Your task to perform on an android device: Open privacy settings Image 0: 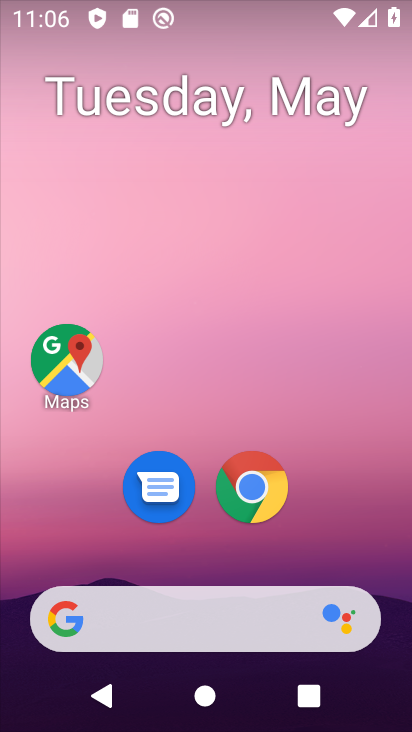
Step 0: drag from (290, 540) to (308, 102)
Your task to perform on an android device: Open privacy settings Image 1: 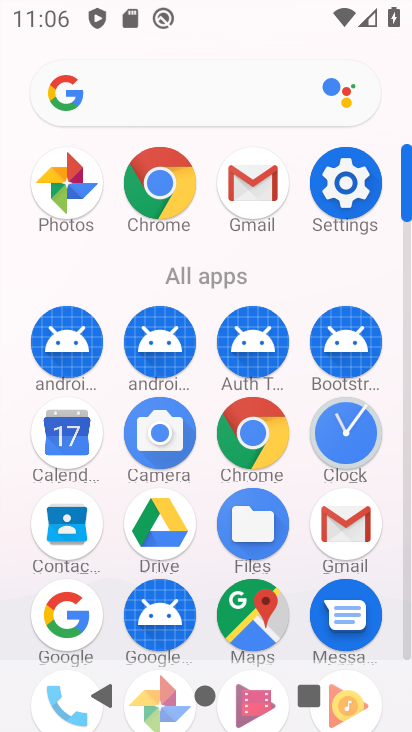
Step 1: click (350, 179)
Your task to perform on an android device: Open privacy settings Image 2: 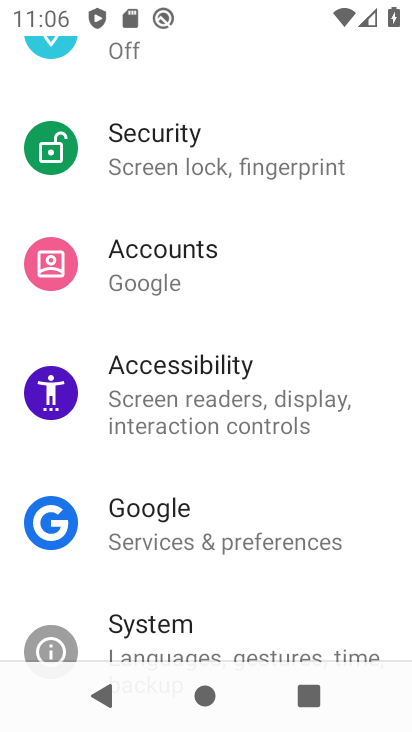
Step 2: drag from (177, 194) to (203, 522)
Your task to perform on an android device: Open privacy settings Image 3: 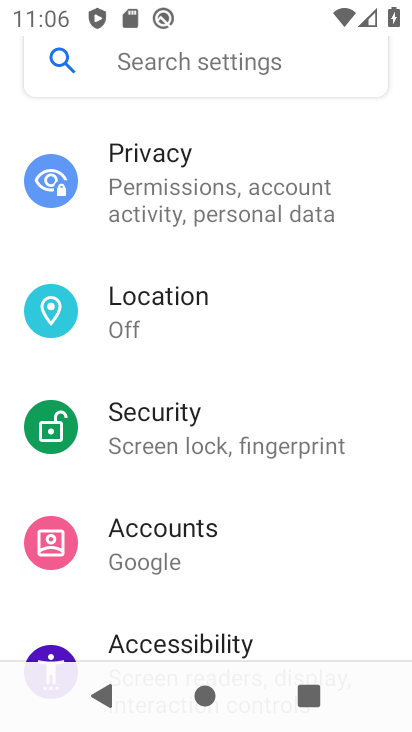
Step 3: click (151, 228)
Your task to perform on an android device: Open privacy settings Image 4: 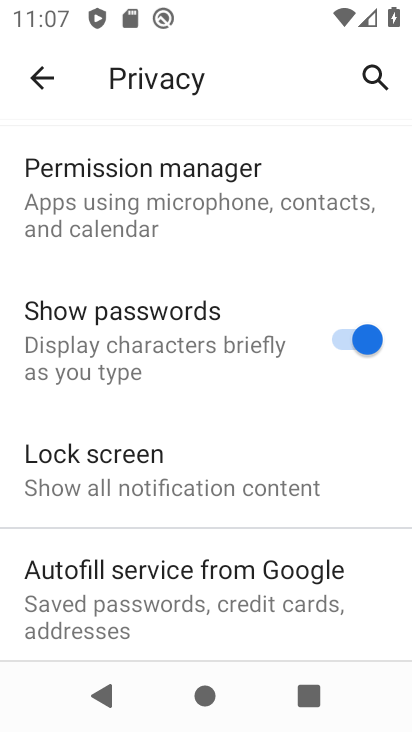
Step 4: task complete